Your task to perform on an android device: open sync settings in chrome Image 0: 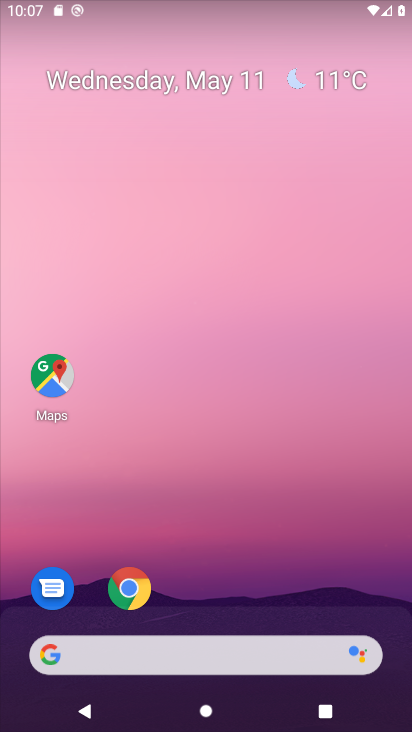
Step 0: click (126, 593)
Your task to perform on an android device: open sync settings in chrome Image 1: 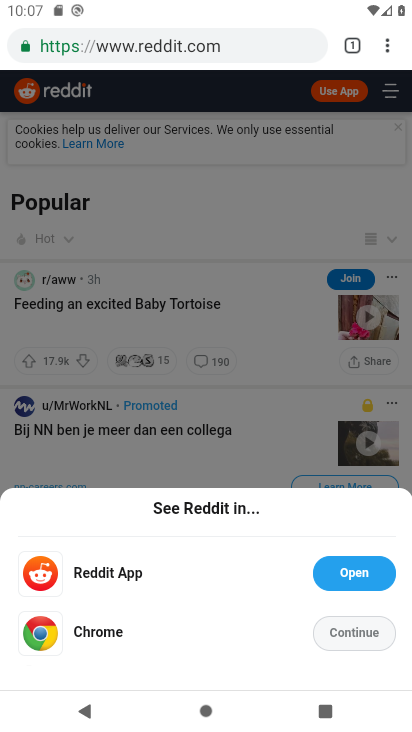
Step 1: click (387, 53)
Your task to perform on an android device: open sync settings in chrome Image 2: 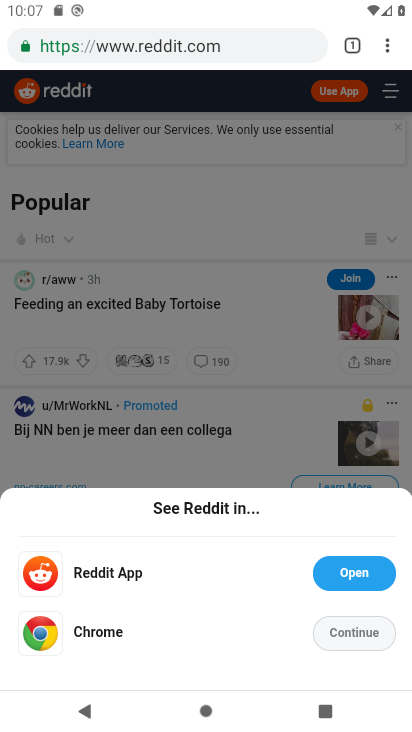
Step 2: drag from (388, 49) to (247, 559)
Your task to perform on an android device: open sync settings in chrome Image 3: 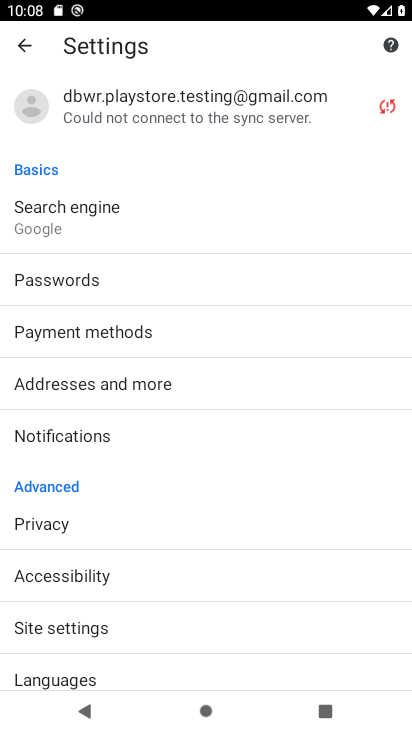
Step 3: click (67, 626)
Your task to perform on an android device: open sync settings in chrome Image 4: 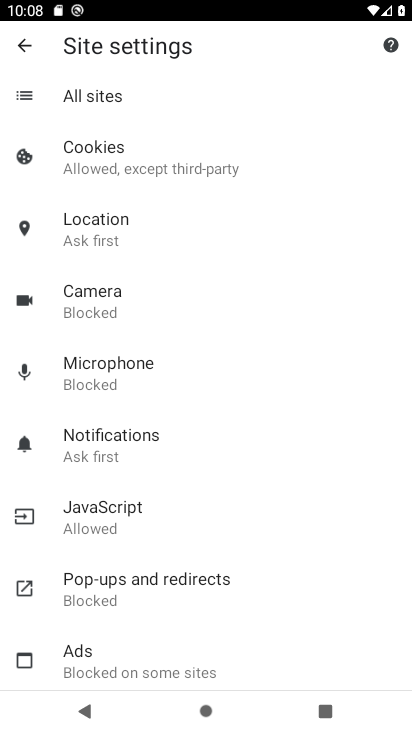
Step 4: drag from (200, 608) to (276, 304)
Your task to perform on an android device: open sync settings in chrome Image 5: 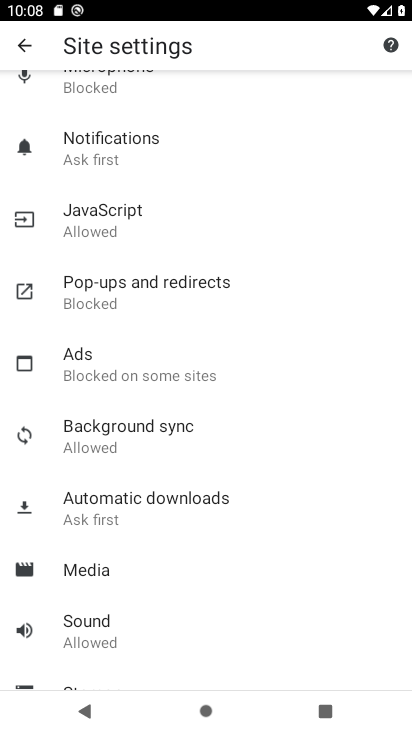
Step 5: click (154, 437)
Your task to perform on an android device: open sync settings in chrome Image 6: 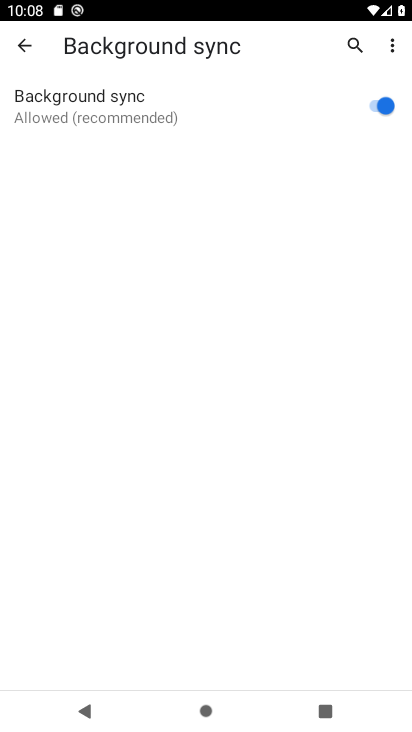
Step 6: task complete